Your task to perform on an android device: Go to Maps Image 0: 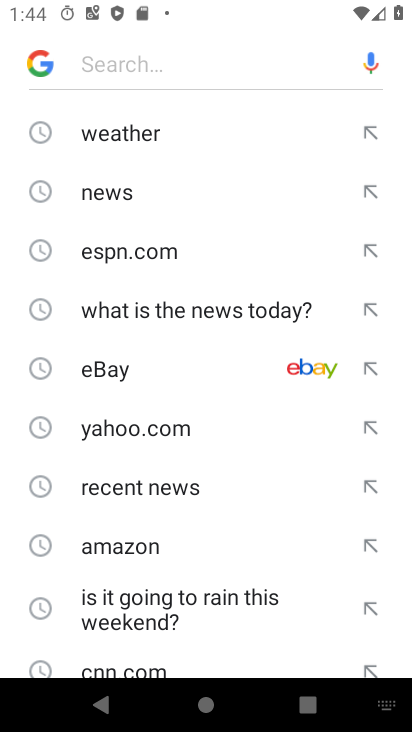
Step 0: press home button
Your task to perform on an android device: Go to Maps Image 1: 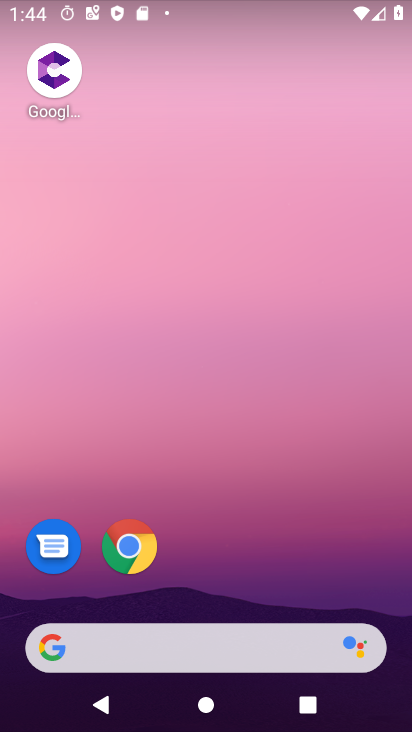
Step 1: drag from (208, 561) to (231, 228)
Your task to perform on an android device: Go to Maps Image 2: 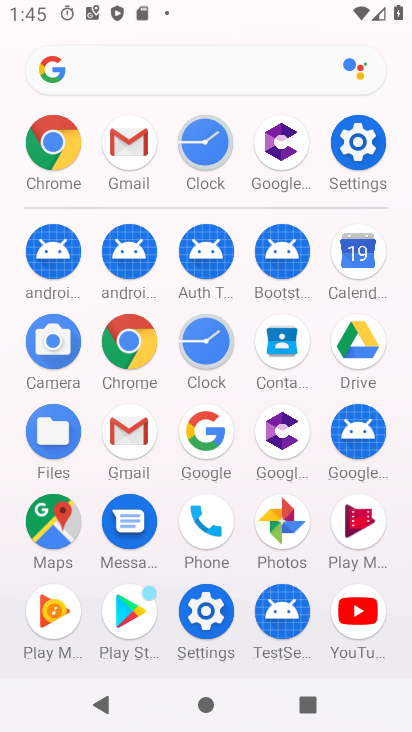
Step 2: click (62, 500)
Your task to perform on an android device: Go to Maps Image 3: 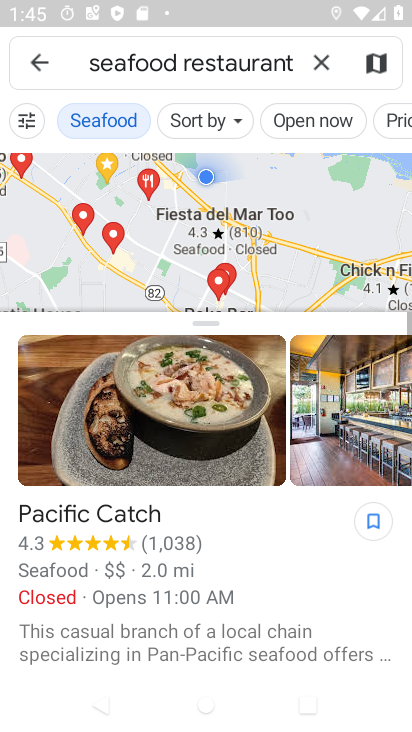
Step 3: task complete